Your task to perform on an android device: delete a single message in the gmail app Image 0: 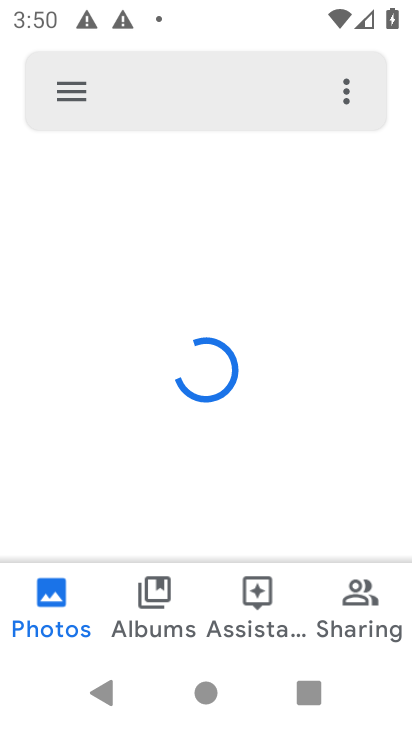
Step 0: press home button
Your task to perform on an android device: delete a single message in the gmail app Image 1: 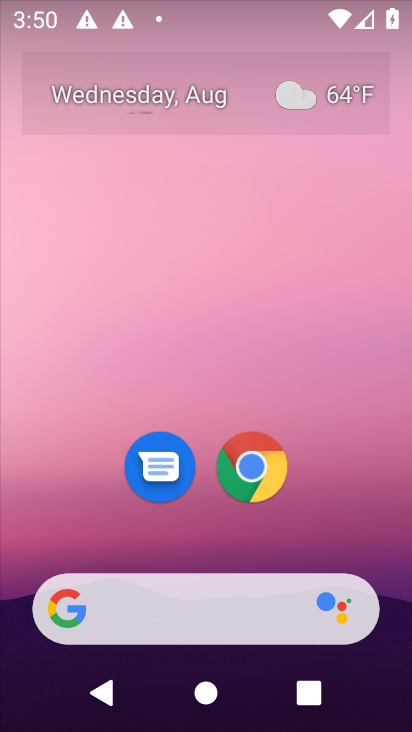
Step 1: drag from (90, 462) to (126, 51)
Your task to perform on an android device: delete a single message in the gmail app Image 2: 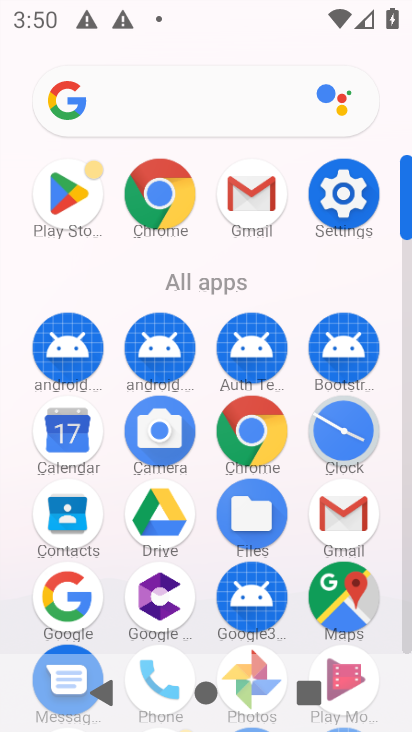
Step 2: click (350, 504)
Your task to perform on an android device: delete a single message in the gmail app Image 3: 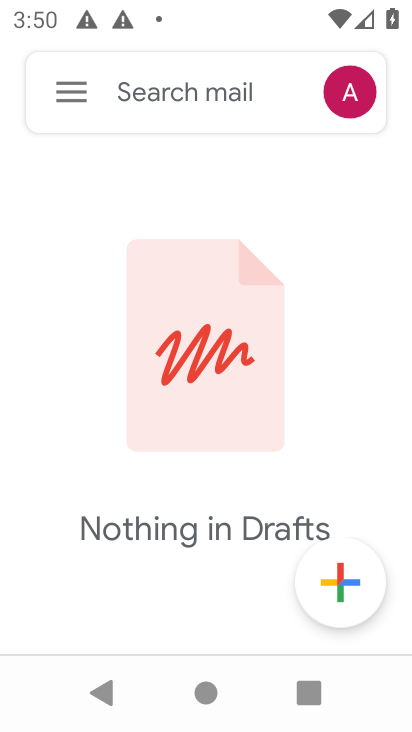
Step 3: click (67, 89)
Your task to perform on an android device: delete a single message in the gmail app Image 4: 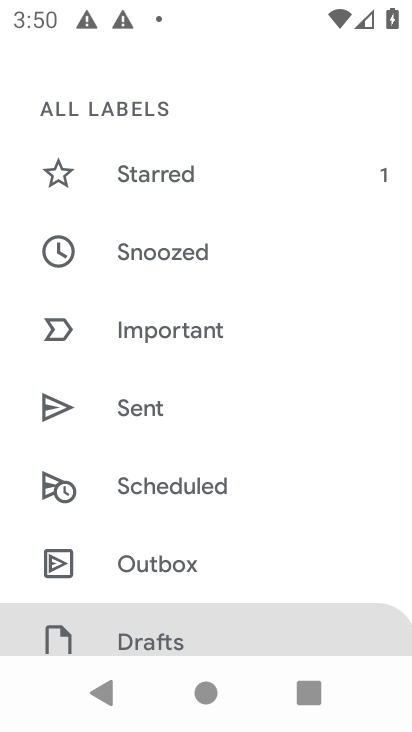
Step 4: drag from (309, 161) to (361, 726)
Your task to perform on an android device: delete a single message in the gmail app Image 5: 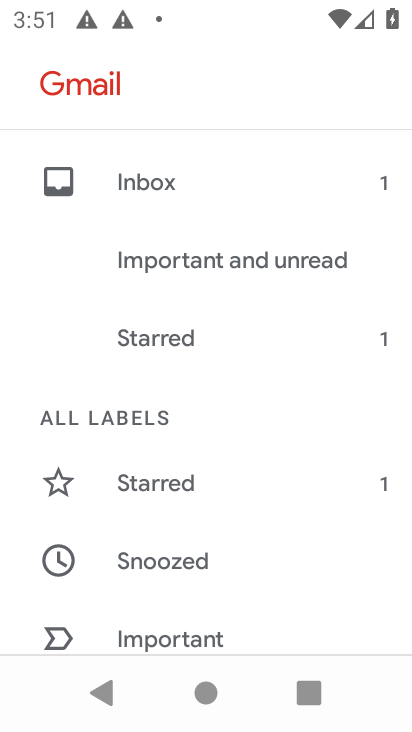
Step 5: click (168, 179)
Your task to perform on an android device: delete a single message in the gmail app Image 6: 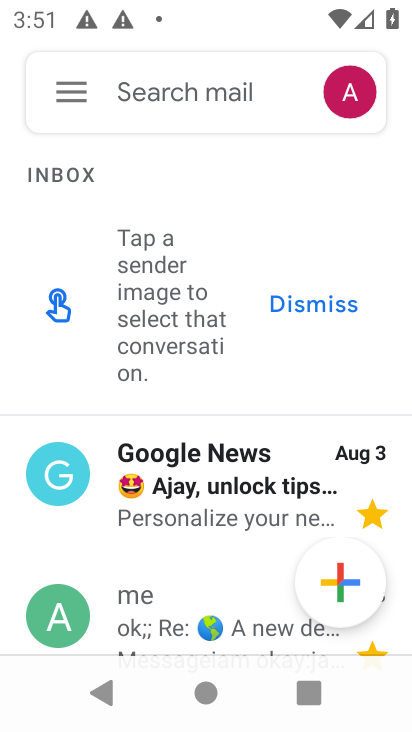
Step 6: click (191, 493)
Your task to perform on an android device: delete a single message in the gmail app Image 7: 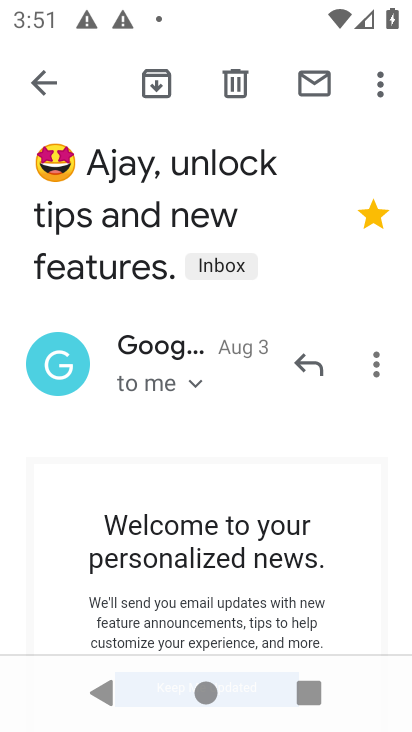
Step 7: click (232, 82)
Your task to perform on an android device: delete a single message in the gmail app Image 8: 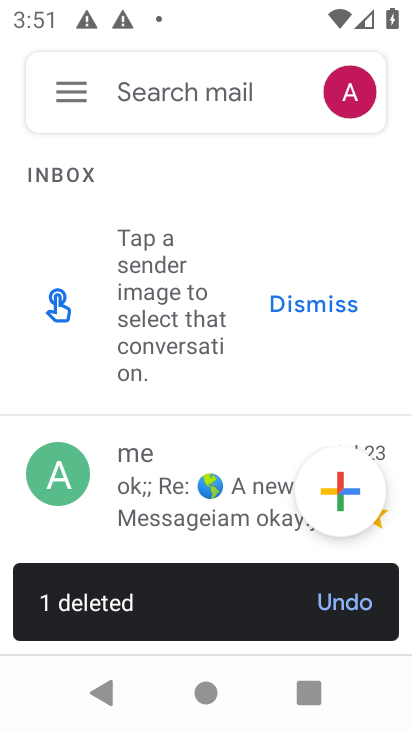
Step 8: task complete